Your task to perform on an android device: Search for Italian restaurants on Maps Image 0: 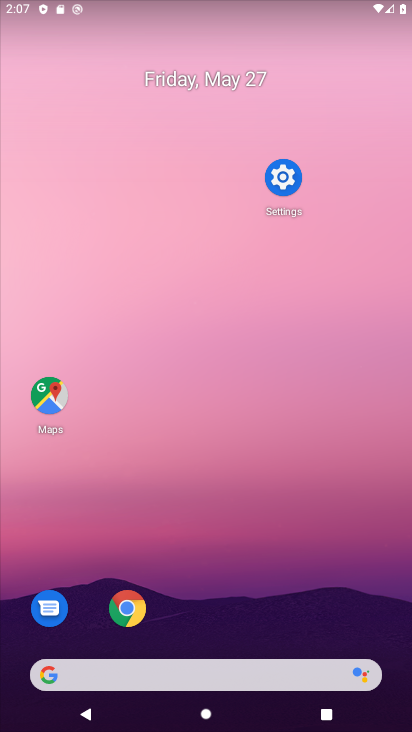
Step 0: click (48, 389)
Your task to perform on an android device: Search for Italian restaurants on Maps Image 1: 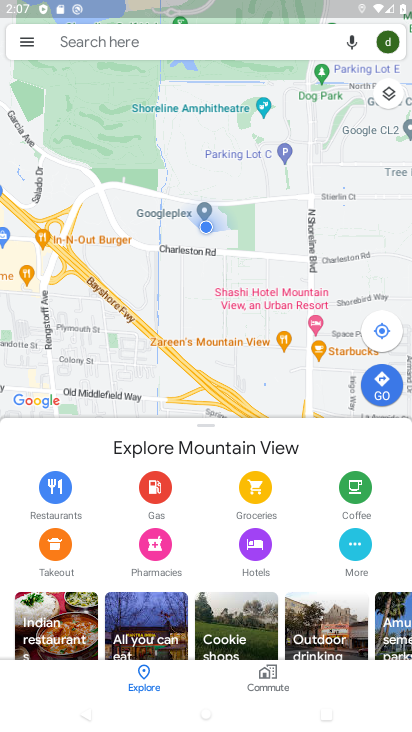
Step 1: type "Italian restaurants "
Your task to perform on an android device: Search for Italian restaurants on Maps Image 2: 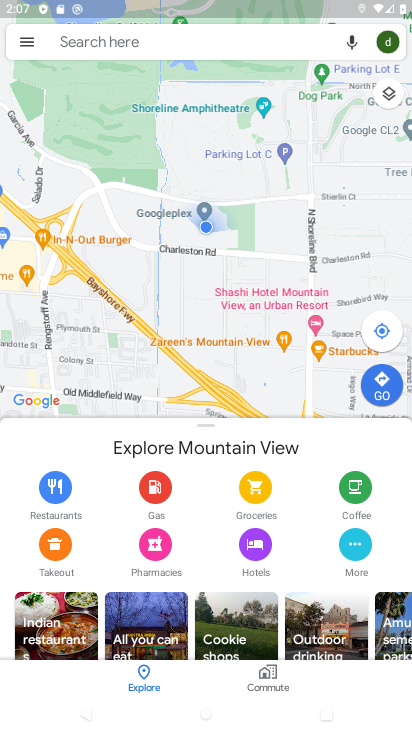
Step 2: click (190, 38)
Your task to perform on an android device: Search for Italian restaurants on Maps Image 3: 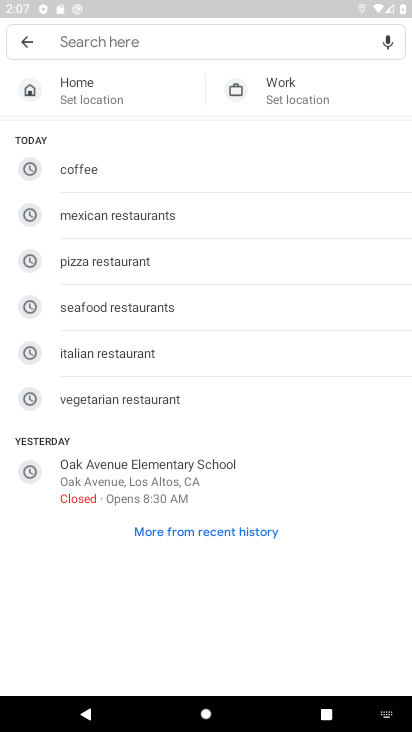
Step 3: click (101, 356)
Your task to perform on an android device: Search for Italian restaurants on Maps Image 4: 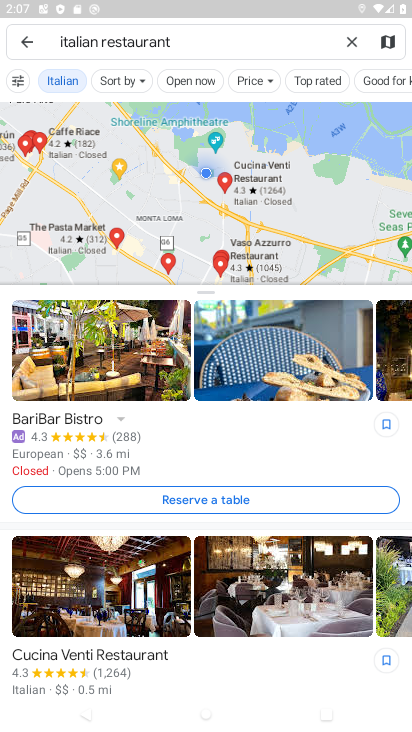
Step 4: task complete